Your task to perform on an android device: When is my next appointment? Image 0: 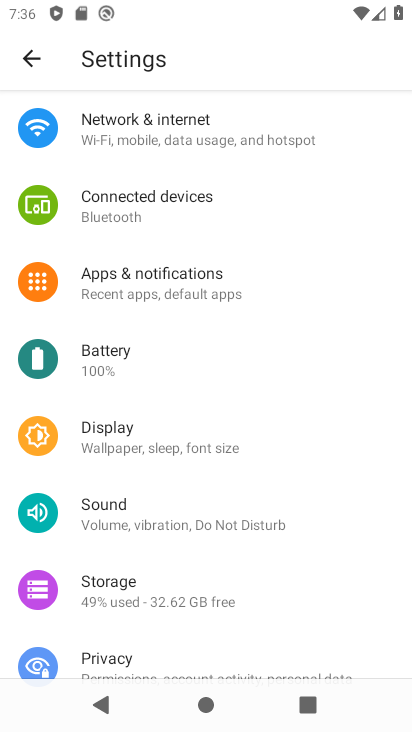
Step 0: press home button
Your task to perform on an android device: When is my next appointment? Image 1: 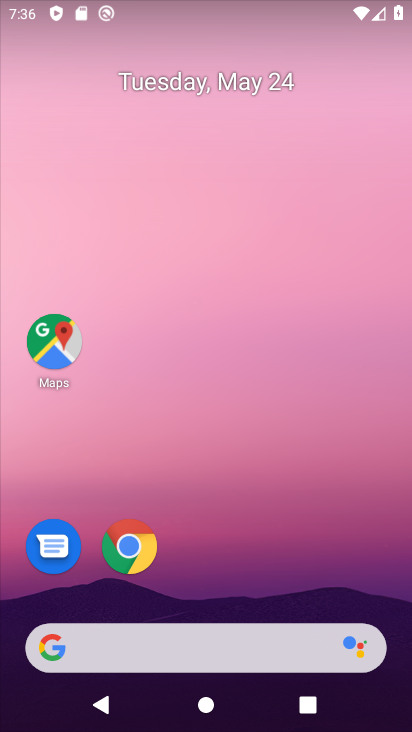
Step 1: drag from (238, 519) to (253, 57)
Your task to perform on an android device: When is my next appointment? Image 2: 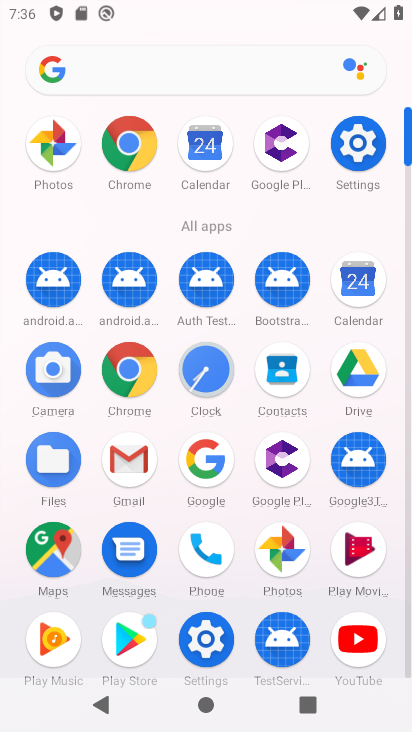
Step 2: click (200, 152)
Your task to perform on an android device: When is my next appointment? Image 3: 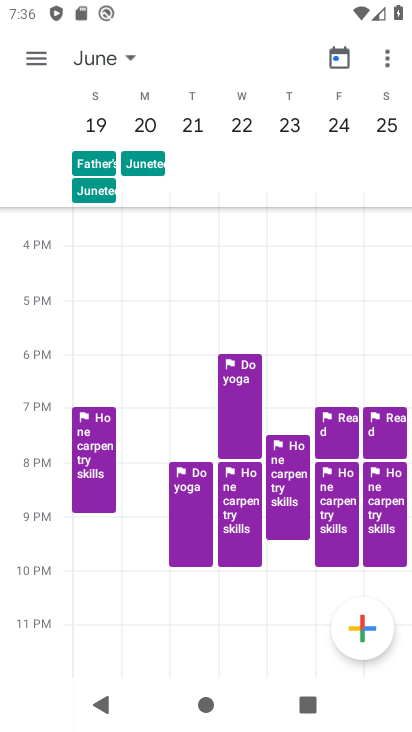
Step 3: drag from (102, 293) to (394, 304)
Your task to perform on an android device: When is my next appointment? Image 4: 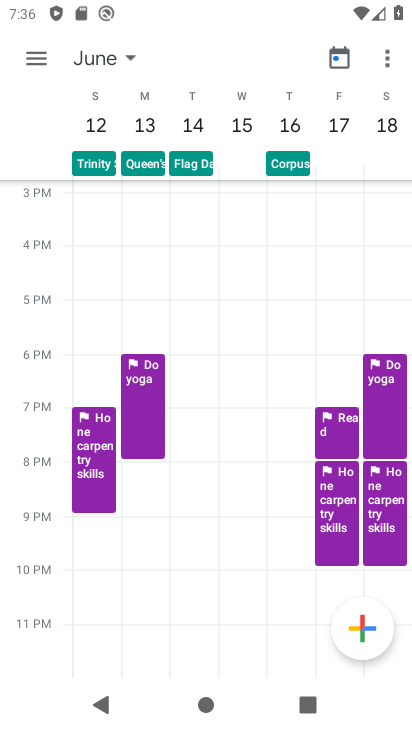
Step 4: drag from (98, 320) to (411, 330)
Your task to perform on an android device: When is my next appointment? Image 5: 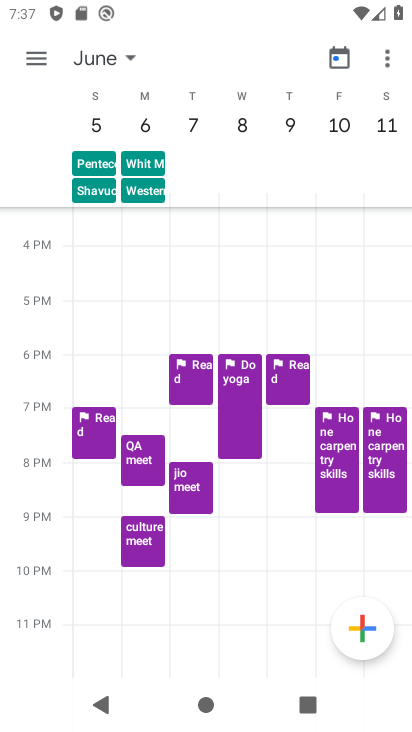
Step 5: drag from (80, 320) to (411, 324)
Your task to perform on an android device: When is my next appointment? Image 6: 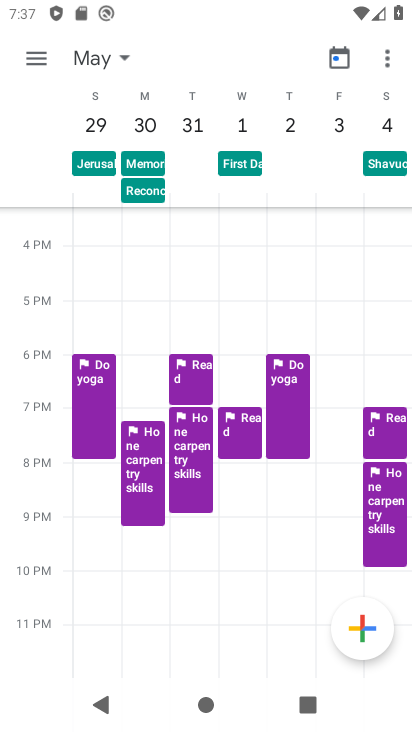
Step 6: drag from (96, 310) to (395, 341)
Your task to perform on an android device: When is my next appointment? Image 7: 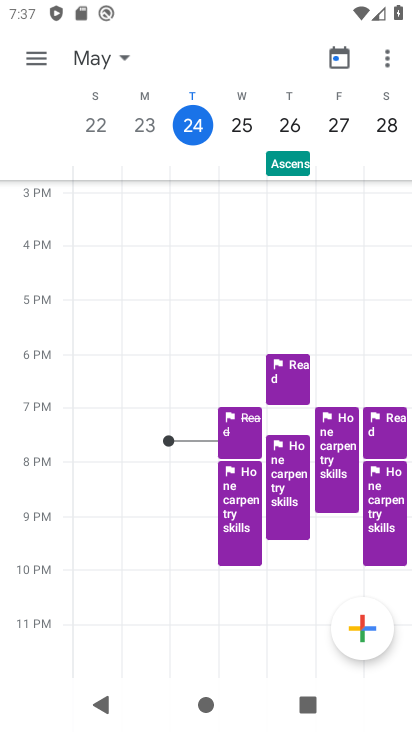
Step 7: click (188, 126)
Your task to perform on an android device: When is my next appointment? Image 8: 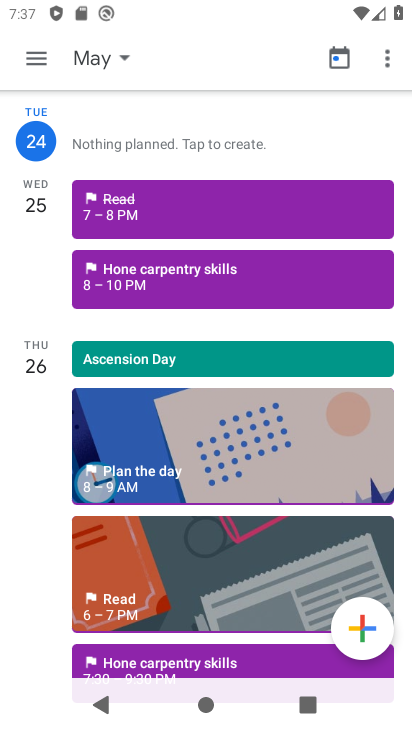
Step 8: task complete